Your task to perform on an android device: turn off data saver in the chrome app Image 0: 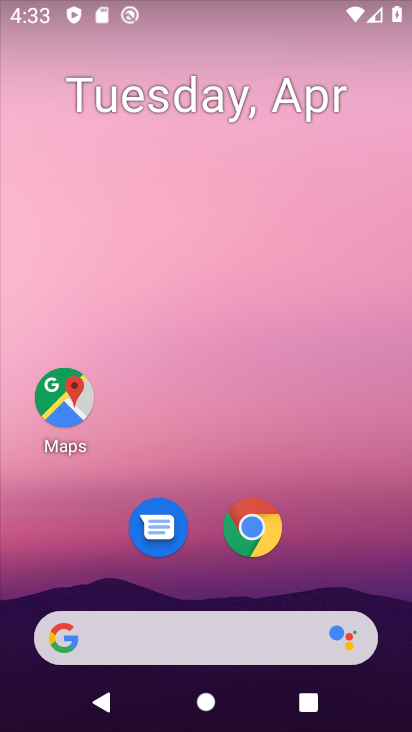
Step 0: click (268, 526)
Your task to perform on an android device: turn off data saver in the chrome app Image 1: 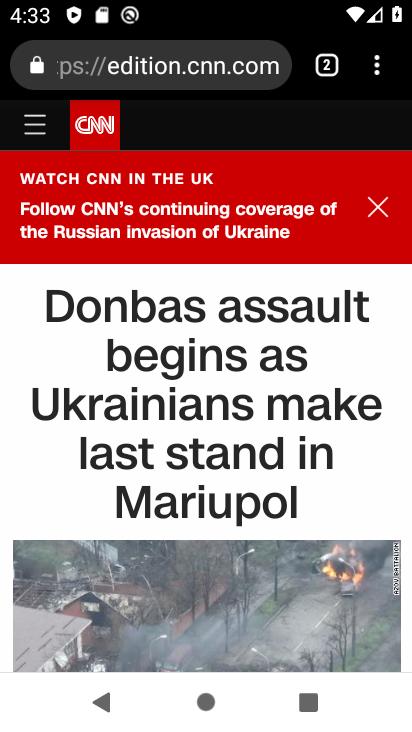
Step 1: click (376, 68)
Your task to perform on an android device: turn off data saver in the chrome app Image 2: 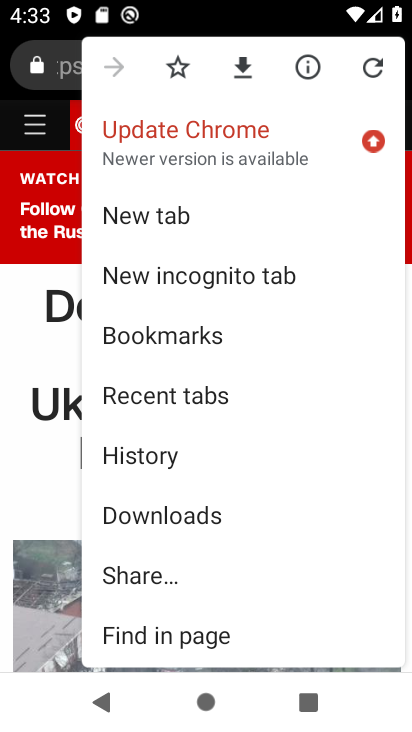
Step 2: drag from (245, 578) to (269, 73)
Your task to perform on an android device: turn off data saver in the chrome app Image 3: 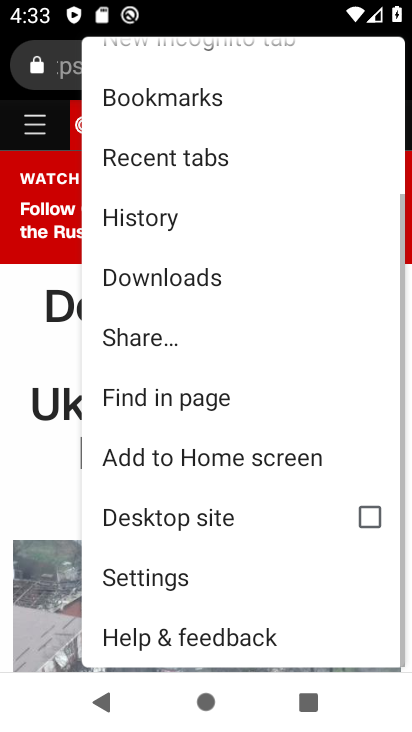
Step 3: click (182, 571)
Your task to perform on an android device: turn off data saver in the chrome app Image 4: 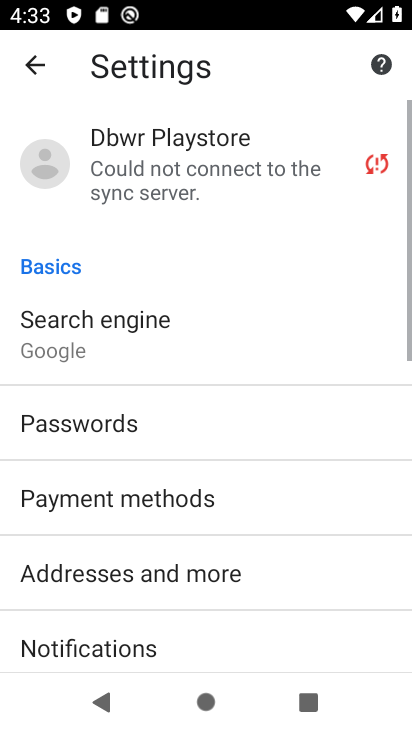
Step 4: drag from (182, 571) to (214, 112)
Your task to perform on an android device: turn off data saver in the chrome app Image 5: 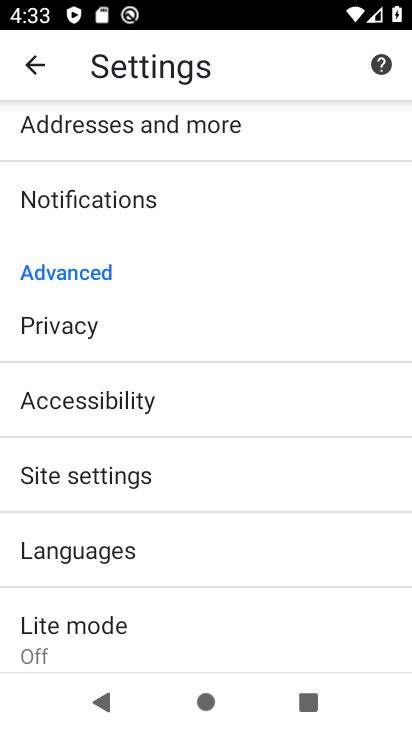
Step 5: click (126, 623)
Your task to perform on an android device: turn off data saver in the chrome app Image 6: 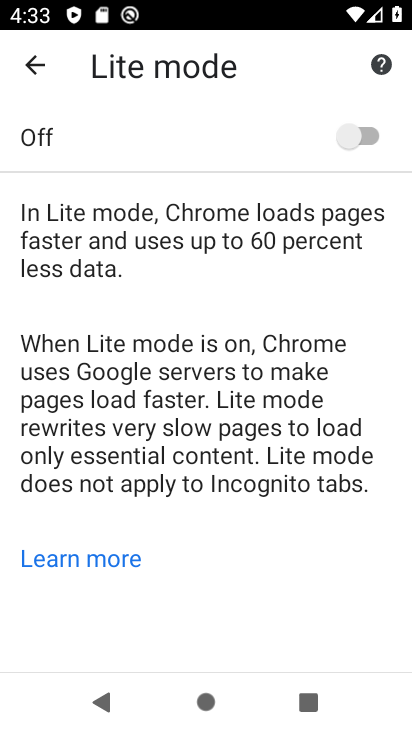
Step 6: task complete